Your task to perform on an android device: change alarm snooze length Image 0: 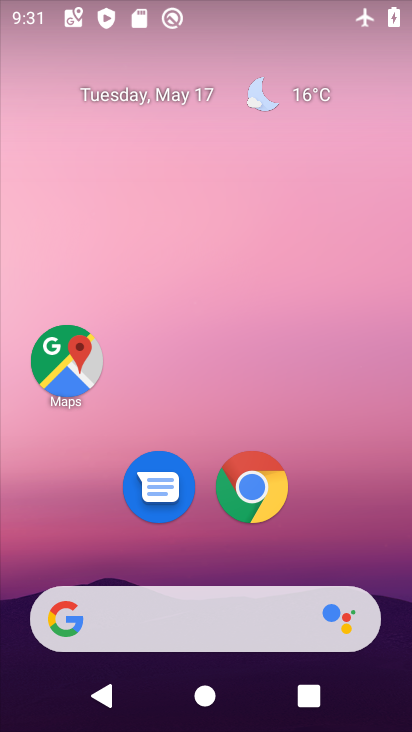
Step 0: drag from (197, 557) to (278, 40)
Your task to perform on an android device: change alarm snooze length Image 1: 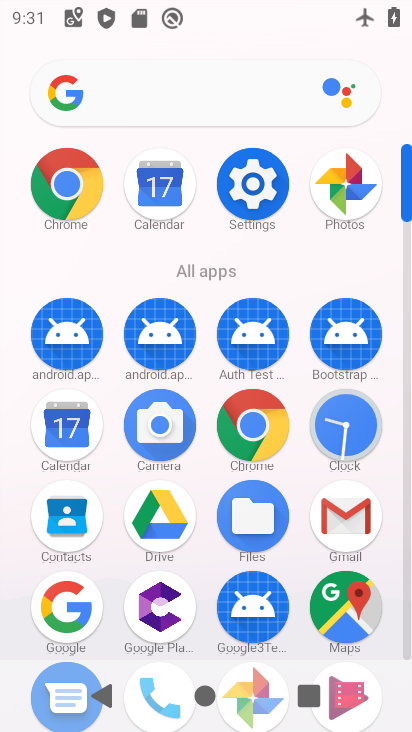
Step 1: click (348, 425)
Your task to perform on an android device: change alarm snooze length Image 2: 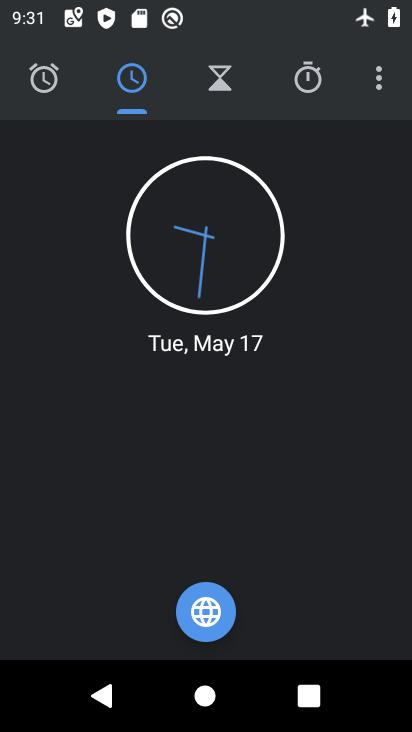
Step 2: click (372, 82)
Your task to perform on an android device: change alarm snooze length Image 3: 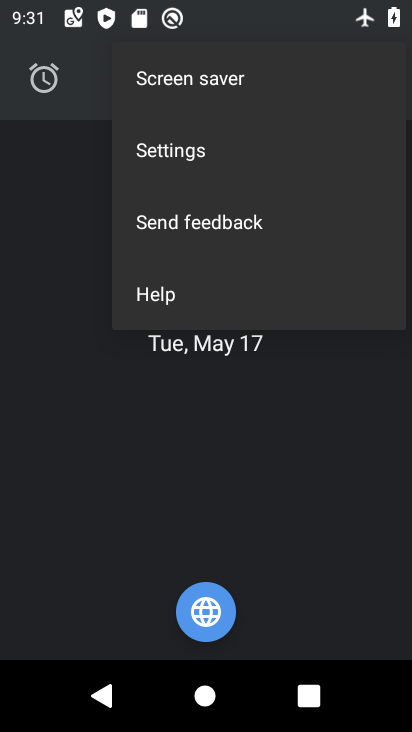
Step 3: click (183, 154)
Your task to perform on an android device: change alarm snooze length Image 4: 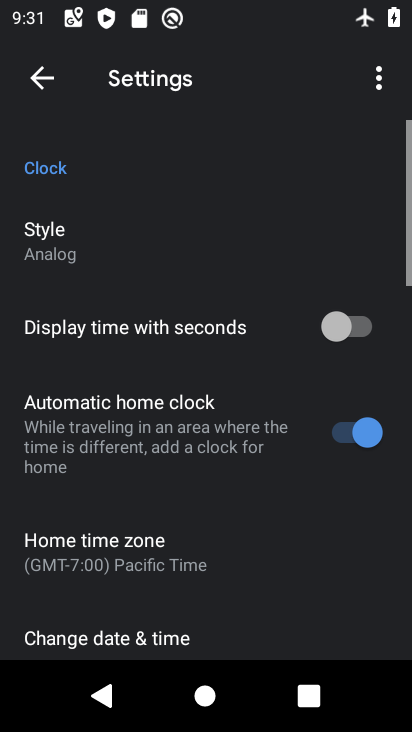
Step 4: drag from (143, 515) to (210, 134)
Your task to perform on an android device: change alarm snooze length Image 5: 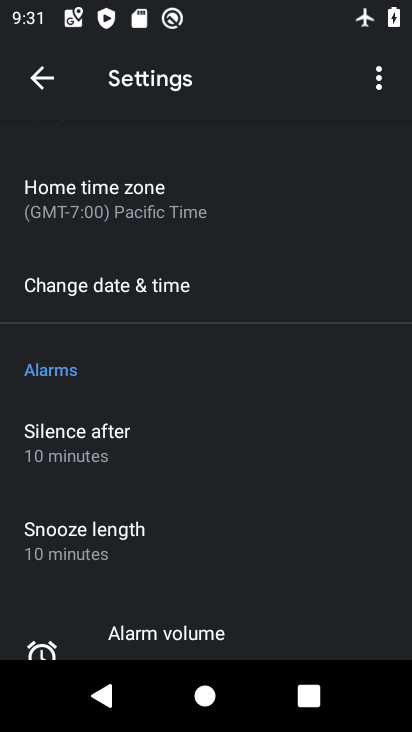
Step 5: click (148, 537)
Your task to perform on an android device: change alarm snooze length Image 6: 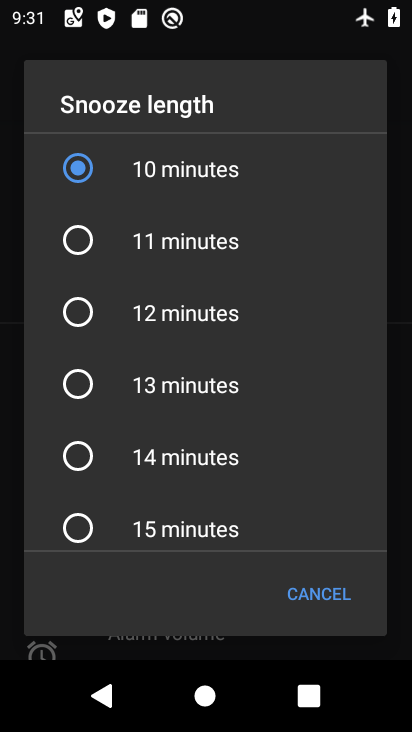
Step 6: click (88, 524)
Your task to perform on an android device: change alarm snooze length Image 7: 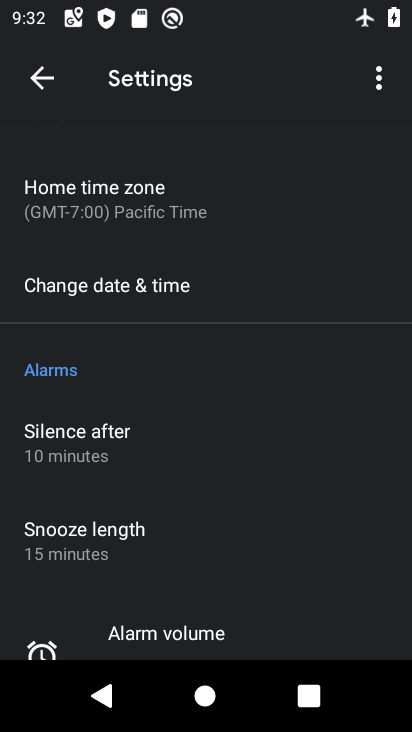
Step 7: task complete